Your task to perform on an android device: Go to Yahoo.com Image 0: 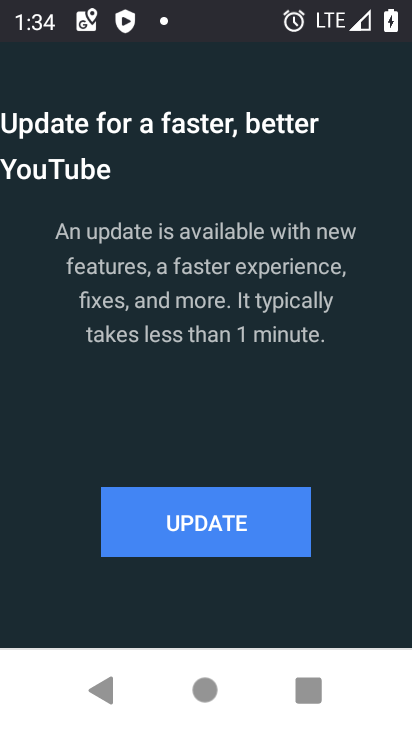
Step 0: press home button
Your task to perform on an android device: Go to Yahoo.com Image 1: 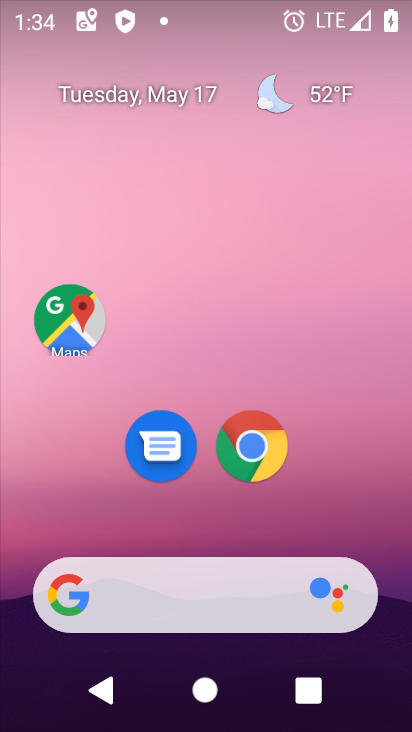
Step 1: click (248, 452)
Your task to perform on an android device: Go to Yahoo.com Image 2: 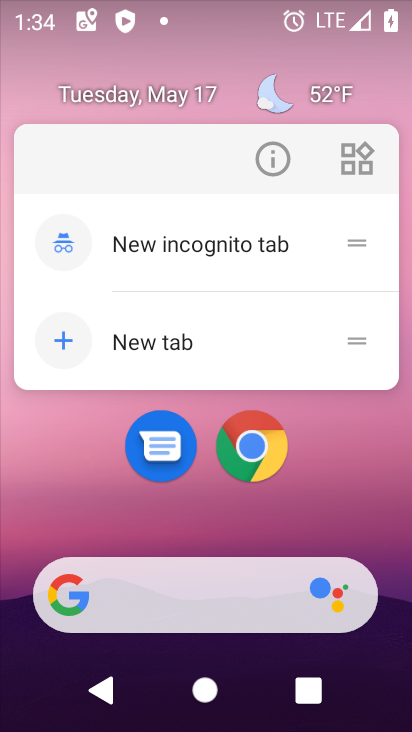
Step 2: click (249, 444)
Your task to perform on an android device: Go to Yahoo.com Image 3: 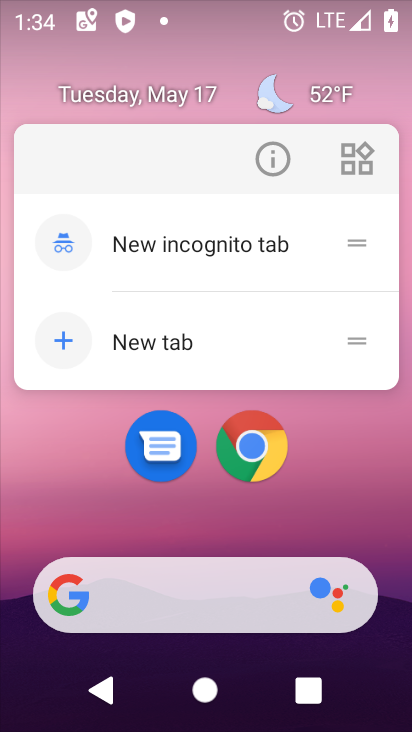
Step 3: click (255, 445)
Your task to perform on an android device: Go to Yahoo.com Image 4: 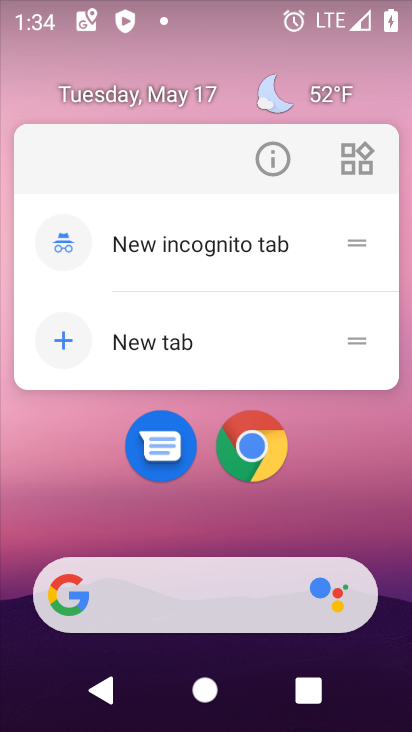
Step 4: click (268, 160)
Your task to perform on an android device: Go to Yahoo.com Image 5: 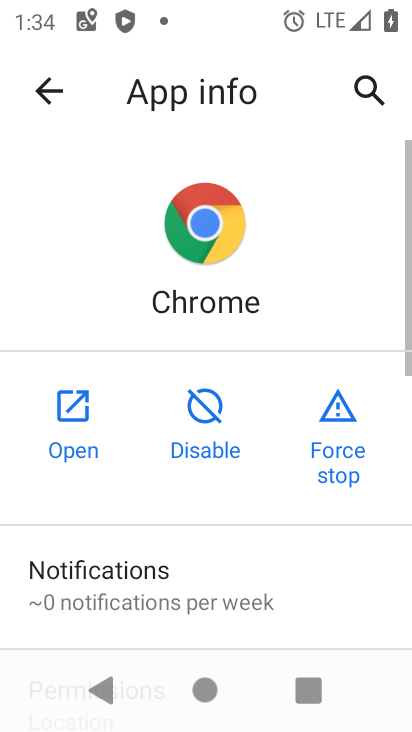
Step 5: click (83, 449)
Your task to perform on an android device: Go to Yahoo.com Image 6: 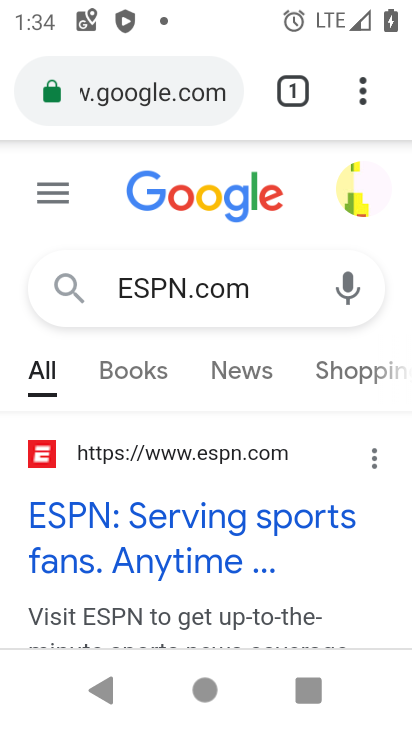
Step 6: click (160, 97)
Your task to perform on an android device: Go to Yahoo.com Image 7: 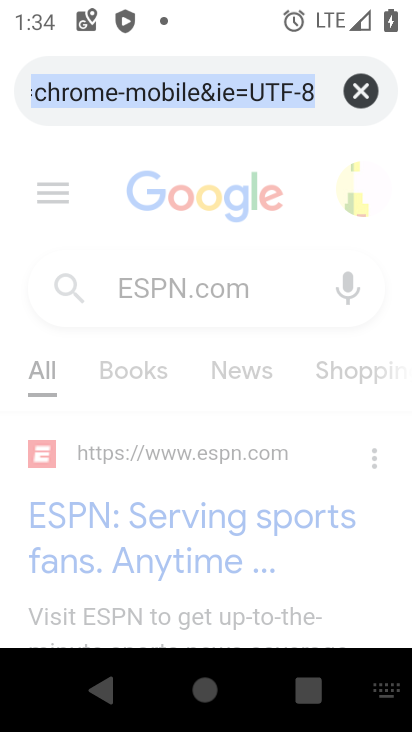
Step 7: type "Yahoo.com"
Your task to perform on an android device: Go to Yahoo.com Image 8: 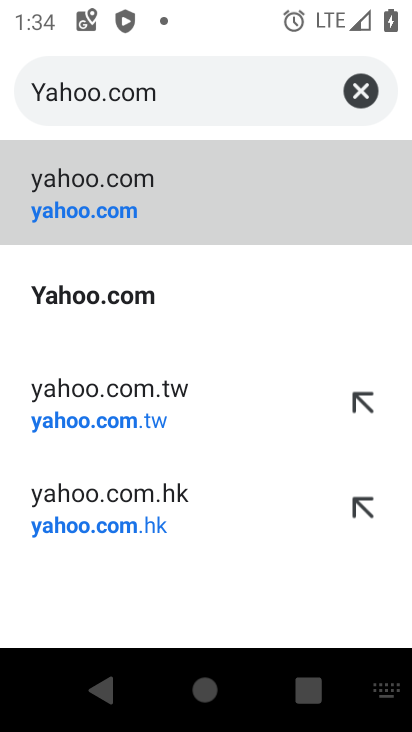
Step 8: click (147, 208)
Your task to perform on an android device: Go to Yahoo.com Image 9: 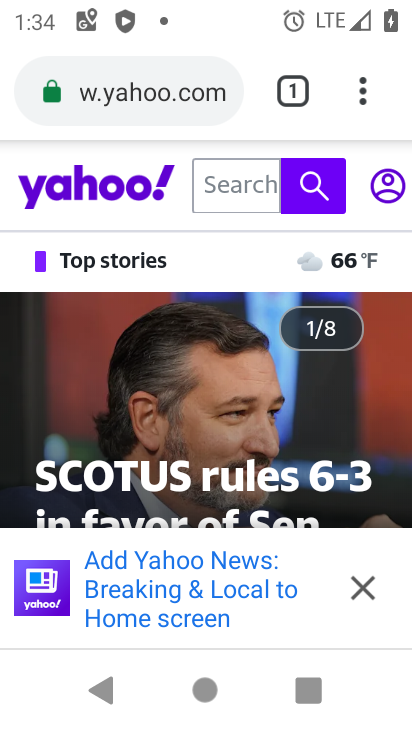
Step 9: task complete